Your task to perform on an android device: Open the stopwatch Image 0: 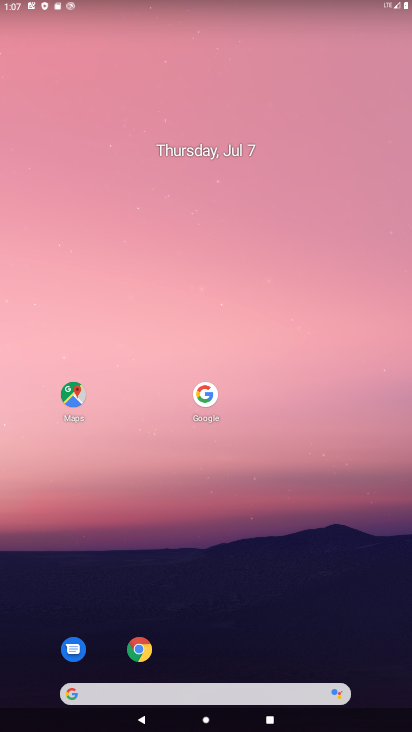
Step 0: press home button
Your task to perform on an android device: Open the stopwatch Image 1: 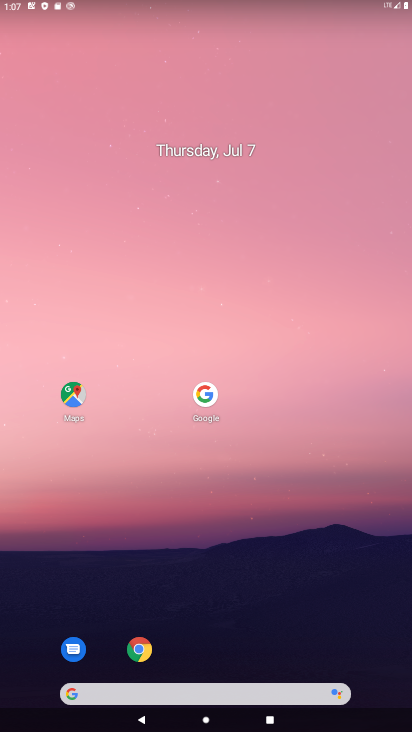
Step 1: drag from (328, 429) to (302, 2)
Your task to perform on an android device: Open the stopwatch Image 2: 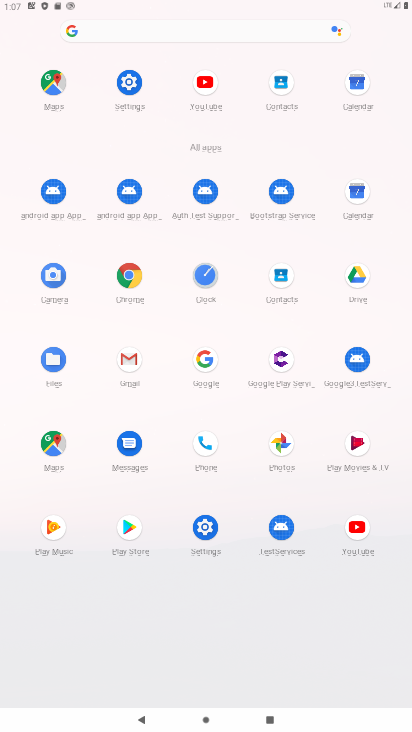
Step 2: click (204, 278)
Your task to perform on an android device: Open the stopwatch Image 3: 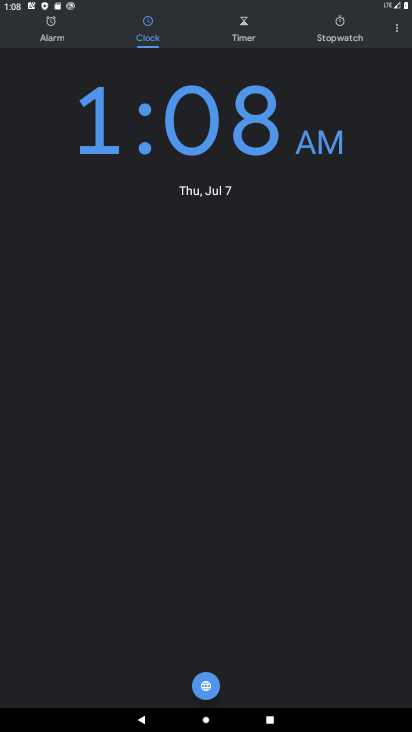
Step 3: click (339, 23)
Your task to perform on an android device: Open the stopwatch Image 4: 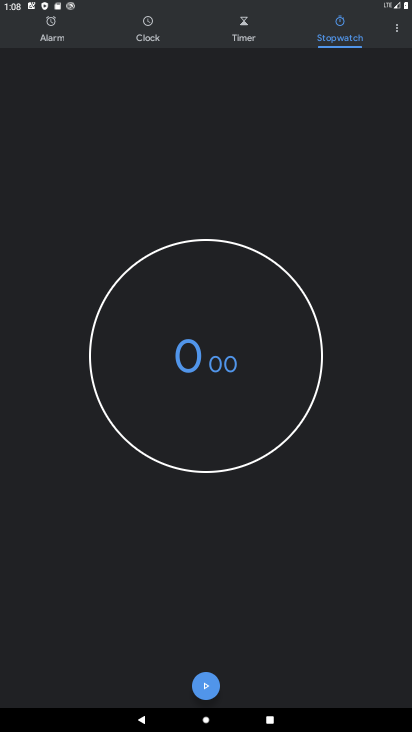
Step 4: task complete